Your task to perform on an android device: open a new tab in the chrome app Image 0: 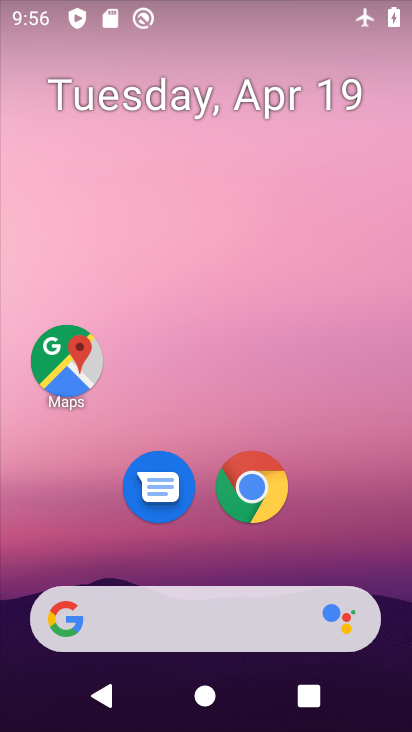
Step 0: click (260, 483)
Your task to perform on an android device: open a new tab in the chrome app Image 1: 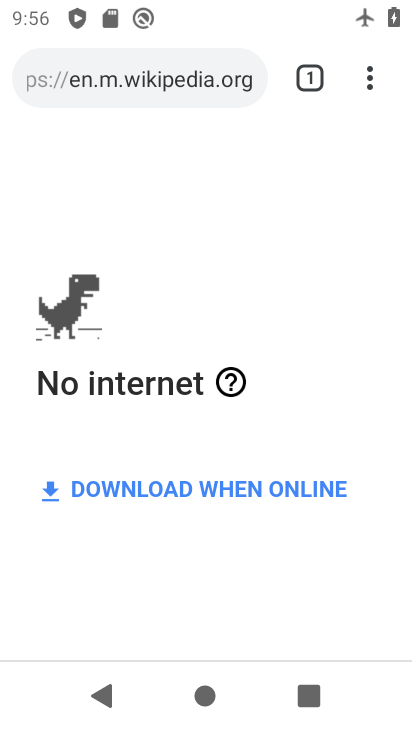
Step 1: click (378, 73)
Your task to perform on an android device: open a new tab in the chrome app Image 2: 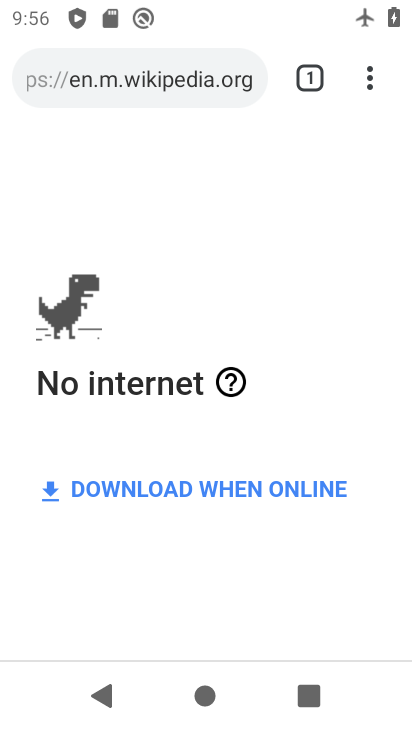
Step 2: click (378, 72)
Your task to perform on an android device: open a new tab in the chrome app Image 3: 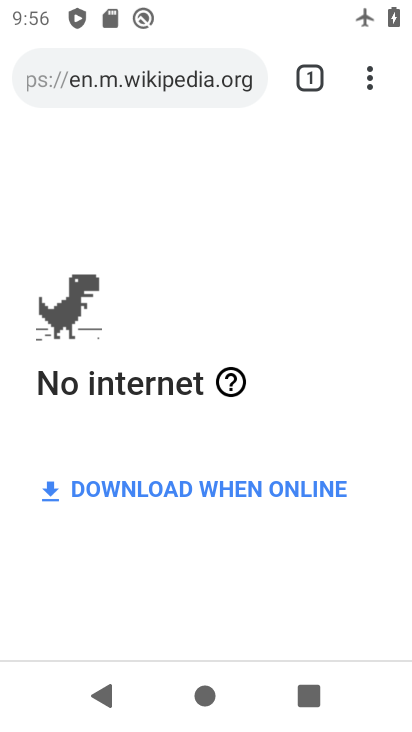
Step 3: click (386, 88)
Your task to perform on an android device: open a new tab in the chrome app Image 4: 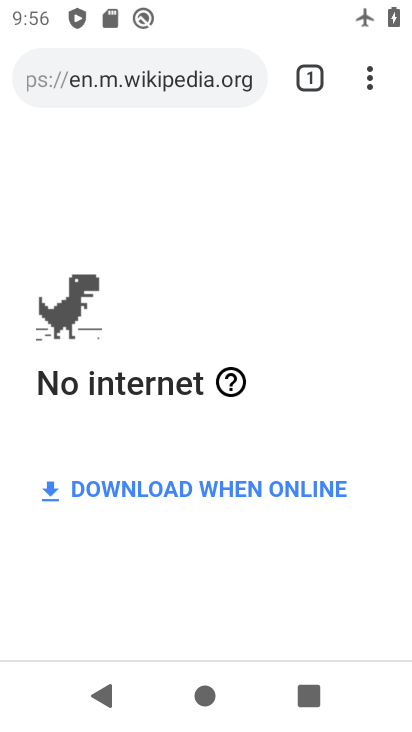
Step 4: click (391, 96)
Your task to perform on an android device: open a new tab in the chrome app Image 5: 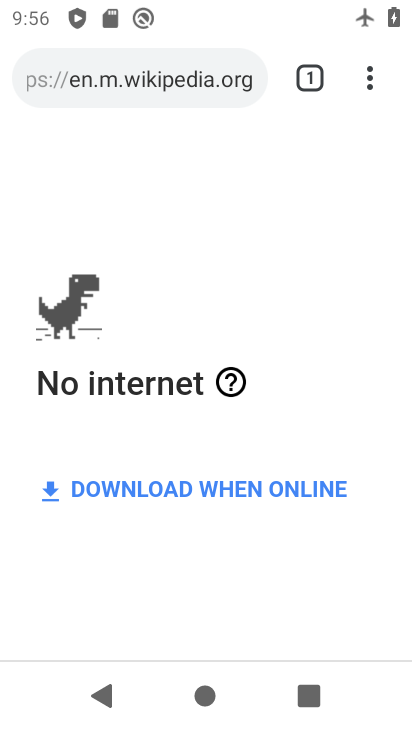
Step 5: click (392, 108)
Your task to perform on an android device: open a new tab in the chrome app Image 6: 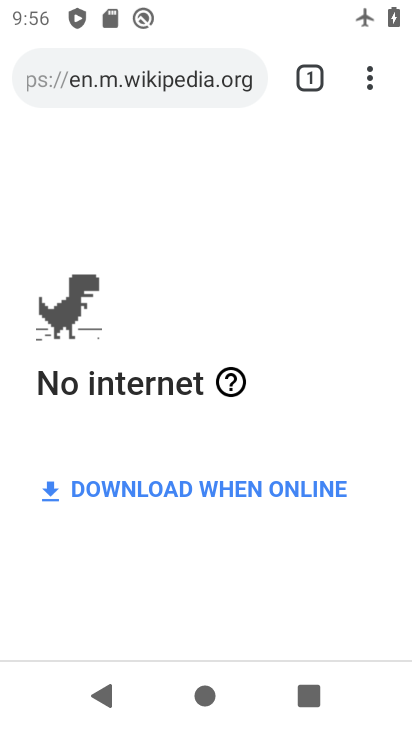
Step 6: click (390, 104)
Your task to perform on an android device: open a new tab in the chrome app Image 7: 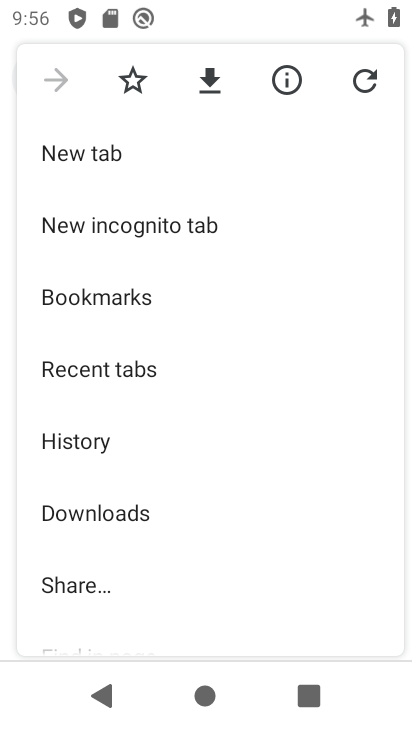
Step 7: click (28, 153)
Your task to perform on an android device: open a new tab in the chrome app Image 8: 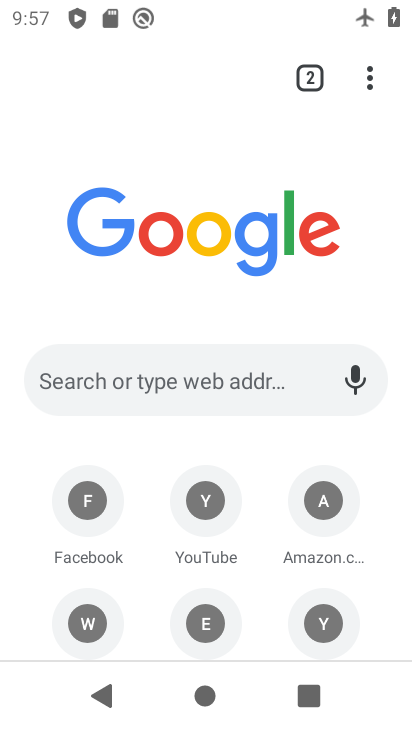
Step 8: task complete